Your task to perform on an android device: Search for Italian restaurants on Maps Image 0: 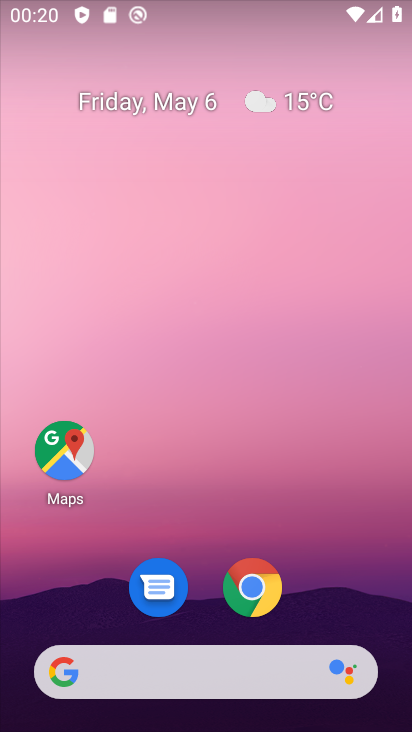
Step 0: click (50, 443)
Your task to perform on an android device: Search for Italian restaurants on Maps Image 1: 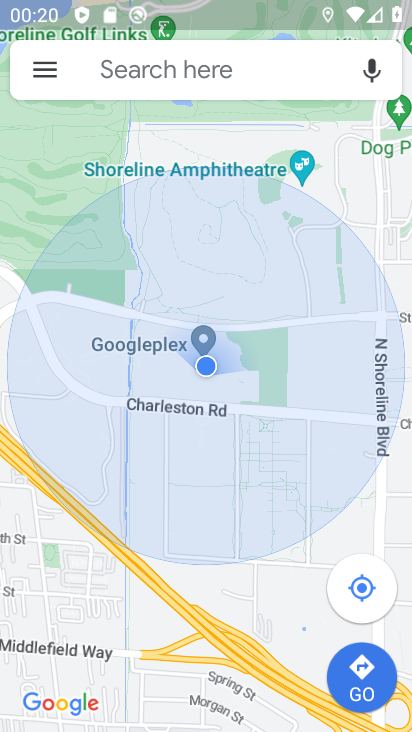
Step 1: click (152, 69)
Your task to perform on an android device: Search for Italian restaurants on Maps Image 2: 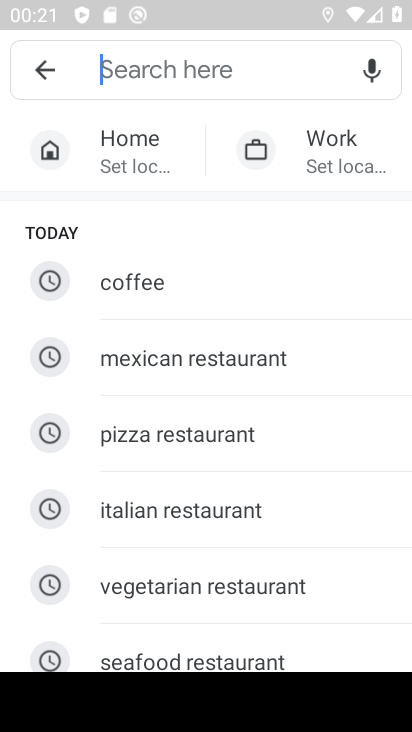
Step 2: type "Italian restaurants "
Your task to perform on an android device: Search for Italian restaurants on Maps Image 3: 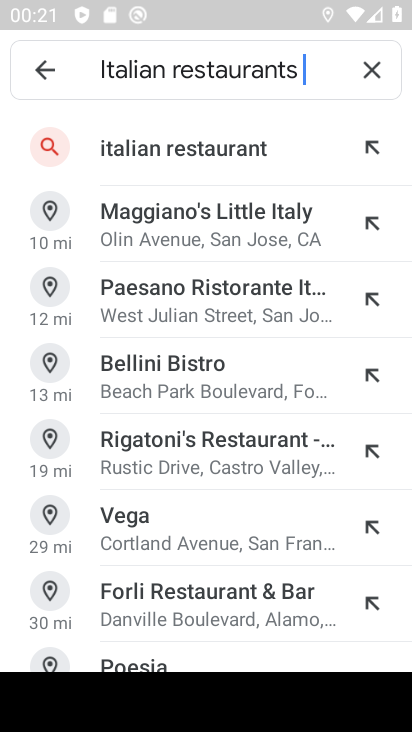
Step 3: click (233, 147)
Your task to perform on an android device: Search for Italian restaurants on Maps Image 4: 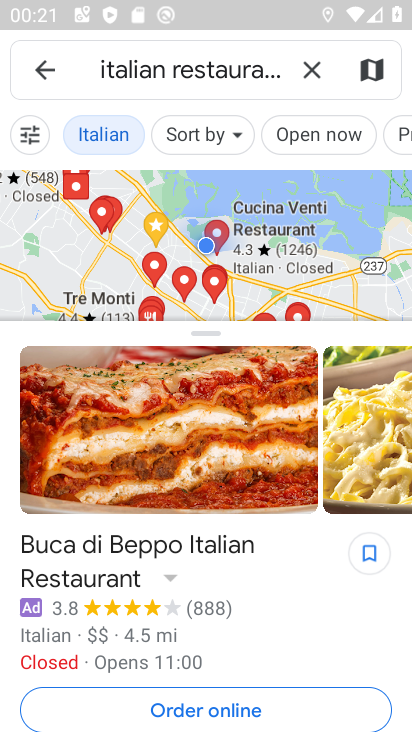
Step 4: task complete